Your task to perform on an android device: set an alarm Image 0: 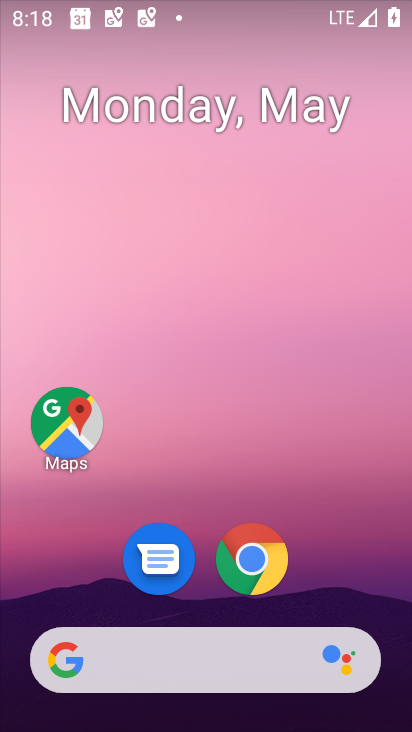
Step 0: drag from (407, 611) to (280, 71)
Your task to perform on an android device: set an alarm Image 1: 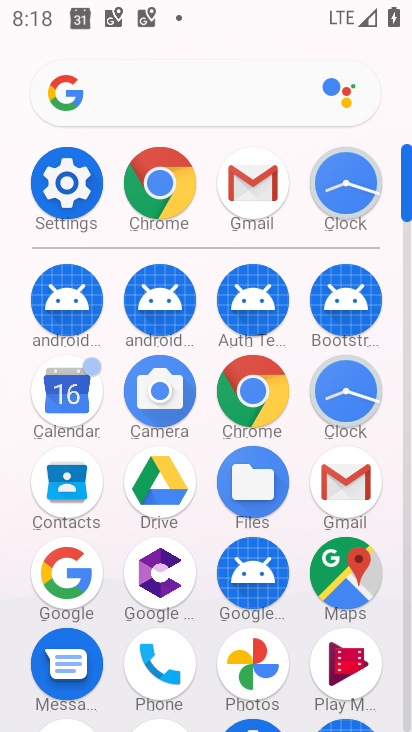
Step 1: click (359, 409)
Your task to perform on an android device: set an alarm Image 2: 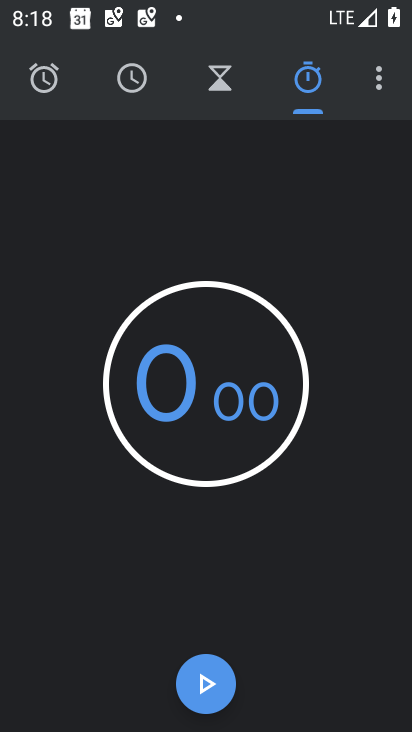
Step 2: click (57, 85)
Your task to perform on an android device: set an alarm Image 3: 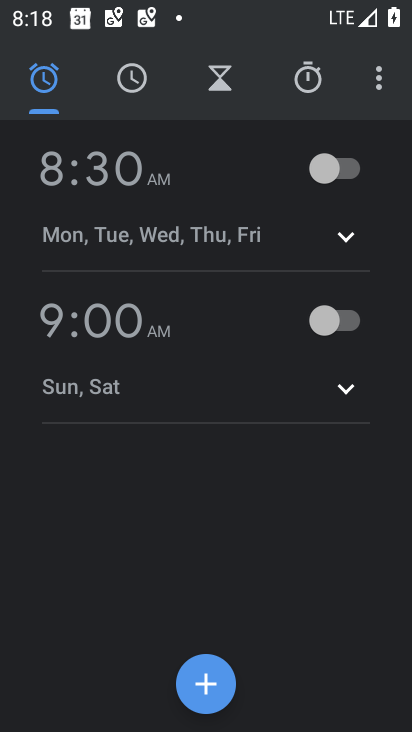
Step 3: click (333, 172)
Your task to perform on an android device: set an alarm Image 4: 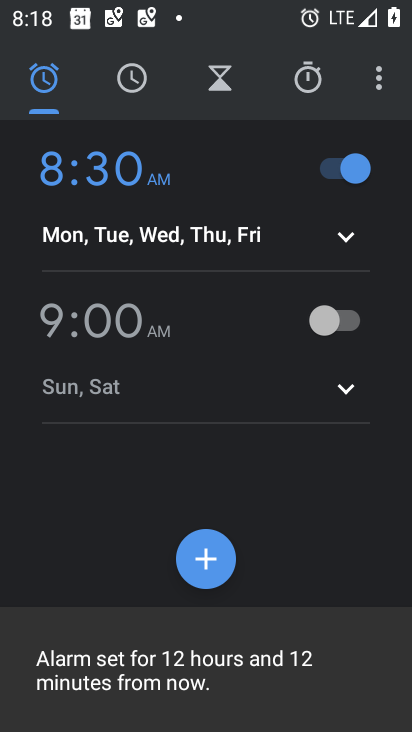
Step 4: task complete